Your task to perform on an android device: turn on priority inbox in the gmail app Image 0: 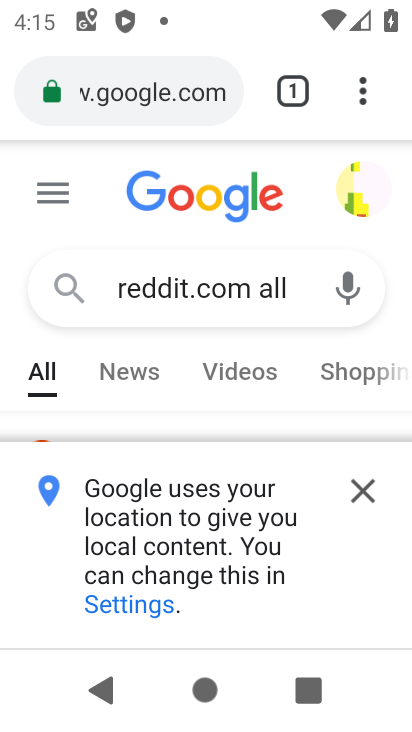
Step 0: task complete